Your task to perform on an android device: toggle show notifications on the lock screen Image 0: 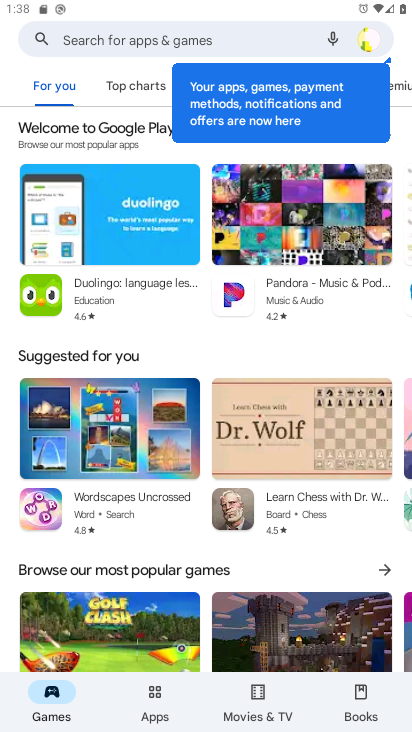
Step 0: press home button
Your task to perform on an android device: toggle show notifications on the lock screen Image 1: 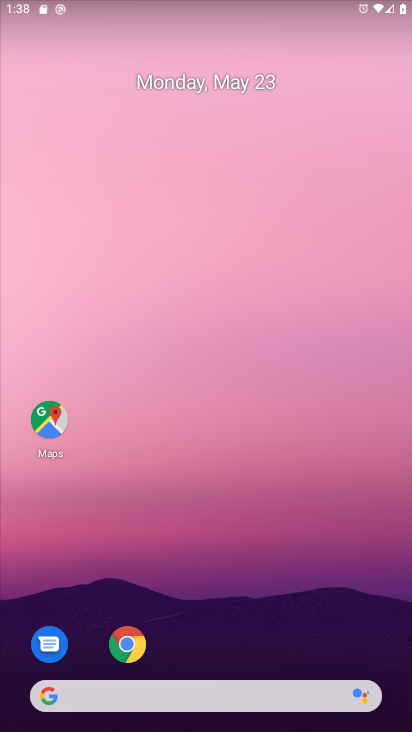
Step 1: drag from (191, 647) to (156, 335)
Your task to perform on an android device: toggle show notifications on the lock screen Image 2: 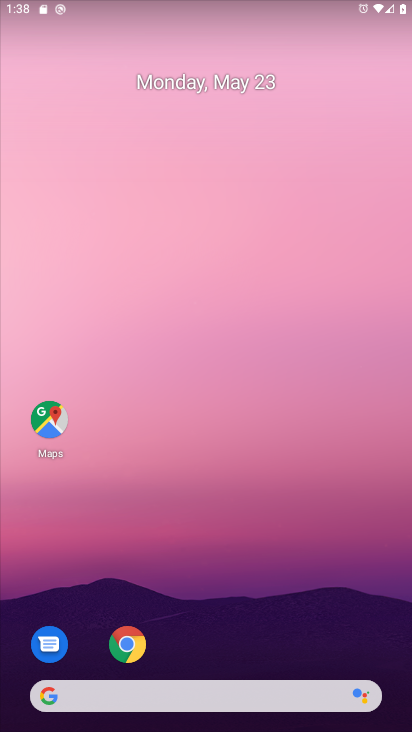
Step 2: drag from (249, 600) to (230, 199)
Your task to perform on an android device: toggle show notifications on the lock screen Image 3: 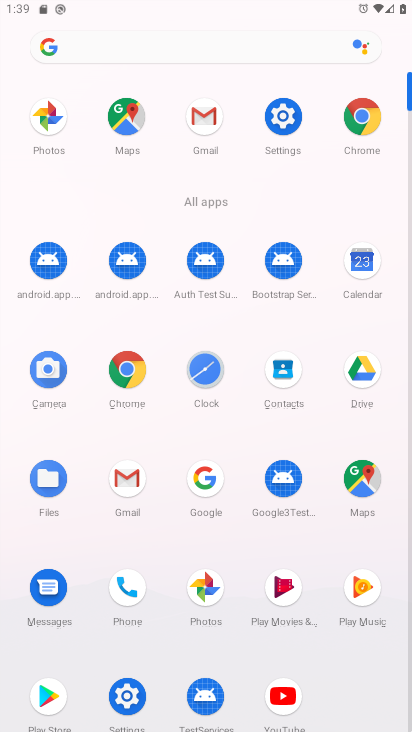
Step 3: click (283, 124)
Your task to perform on an android device: toggle show notifications on the lock screen Image 4: 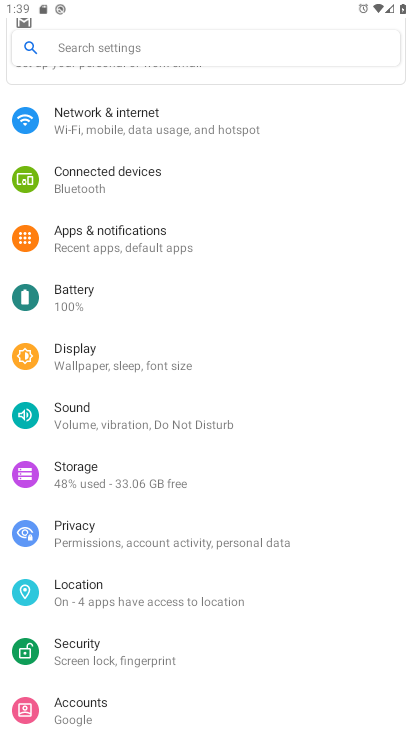
Step 4: click (90, 244)
Your task to perform on an android device: toggle show notifications on the lock screen Image 5: 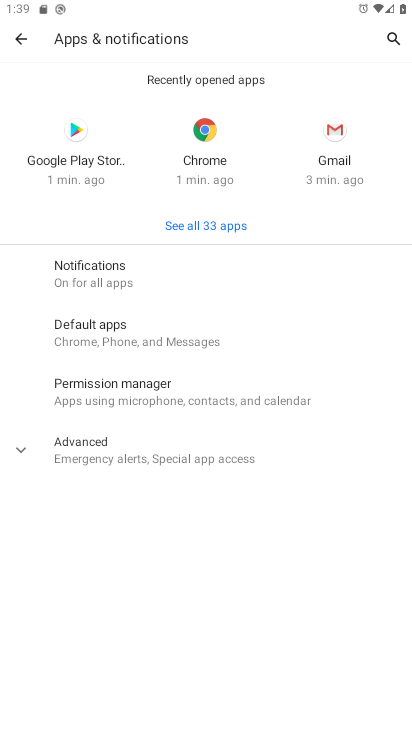
Step 5: click (96, 273)
Your task to perform on an android device: toggle show notifications on the lock screen Image 6: 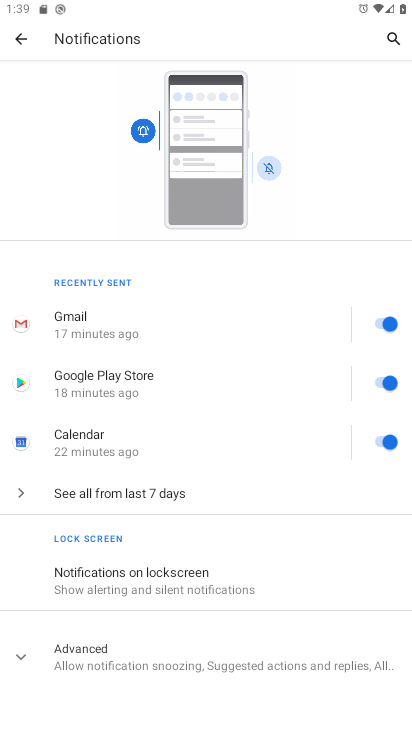
Step 6: click (108, 586)
Your task to perform on an android device: toggle show notifications on the lock screen Image 7: 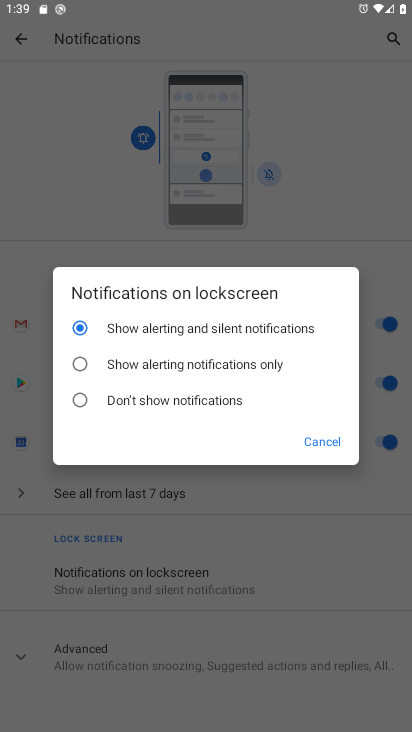
Step 7: click (74, 405)
Your task to perform on an android device: toggle show notifications on the lock screen Image 8: 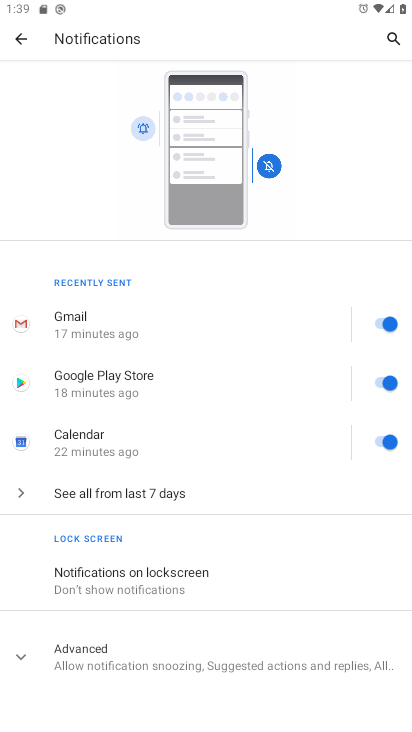
Step 8: task complete